Your task to perform on an android device: Open the calendar and show me this week's events? Image 0: 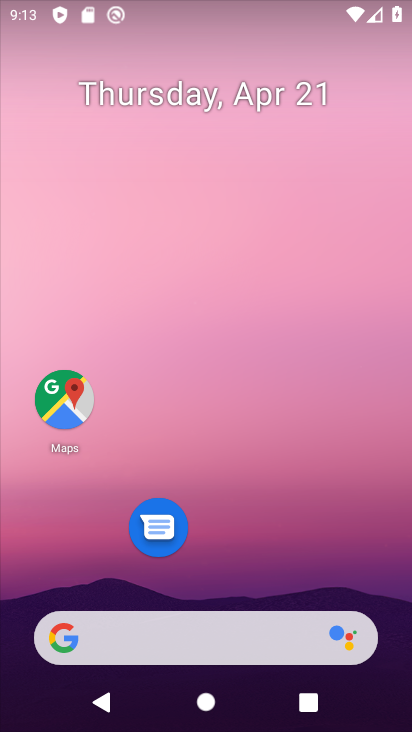
Step 0: drag from (215, 456) to (215, 51)
Your task to perform on an android device: Open the calendar and show me this week's events? Image 1: 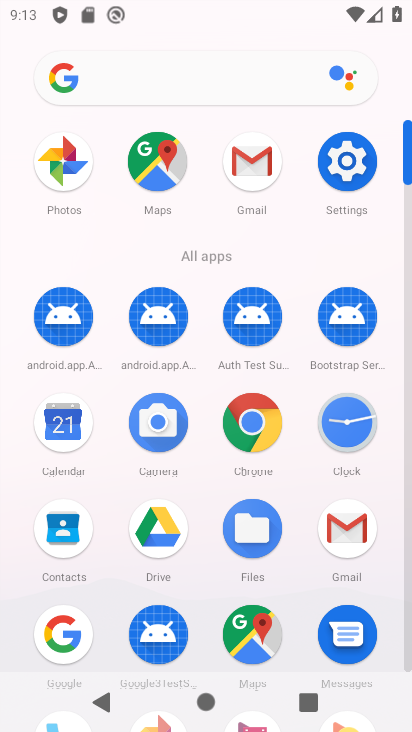
Step 1: click (73, 426)
Your task to perform on an android device: Open the calendar and show me this week's events? Image 2: 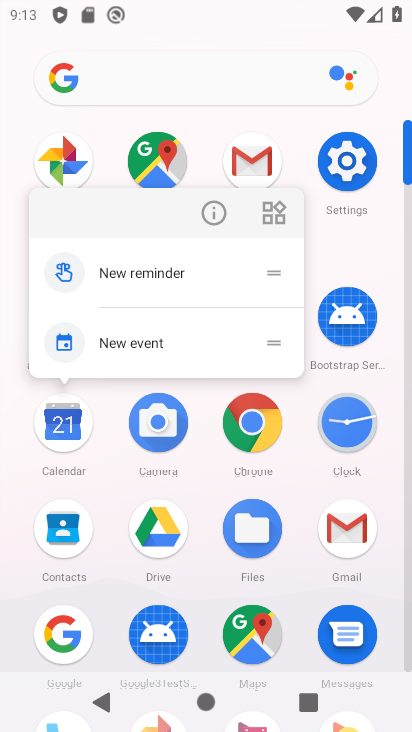
Step 2: click (71, 429)
Your task to perform on an android device: Open the calendar and show me this week's events? Image 3: 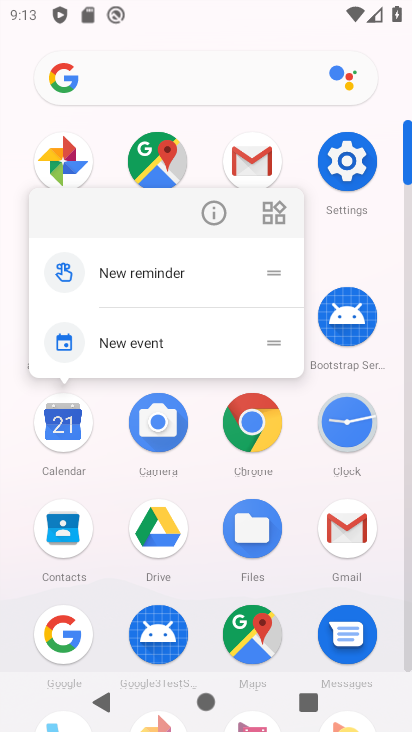
Step 3: click (71, 429)
Your task to perform on an android device: Open the calendar and show me this week's events? Image 4: 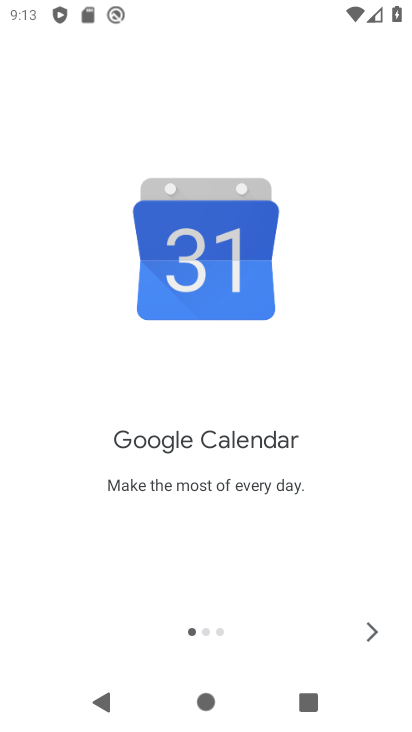
Step 4: click (363, 636)
Your task to perform on an android device: Open the calendar and show me this week's events? Image 5: 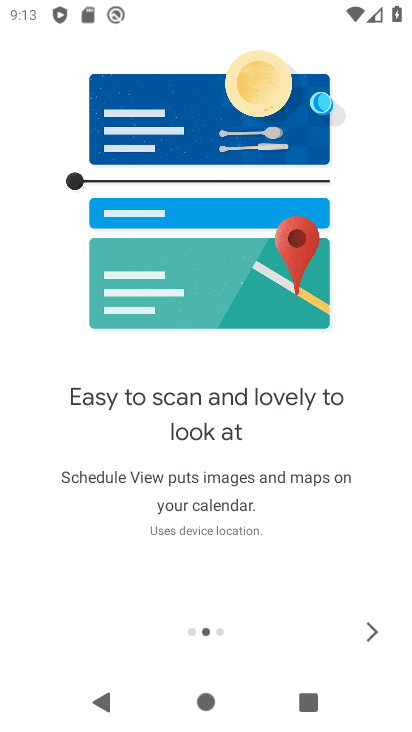
Step 5: click (363, 636)
Your task to perform on an android device: Open the calendar and show me this week's events? Image 6: 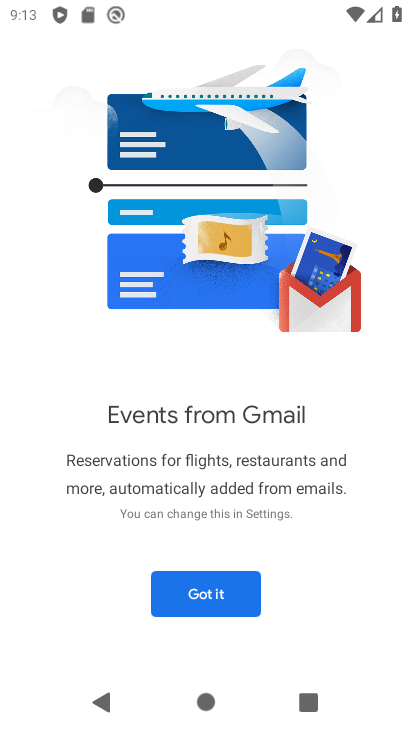
Step 6: click (220, 579)
Your task to perform on an android device: Open the calendar and show me this week's events? Image 7: 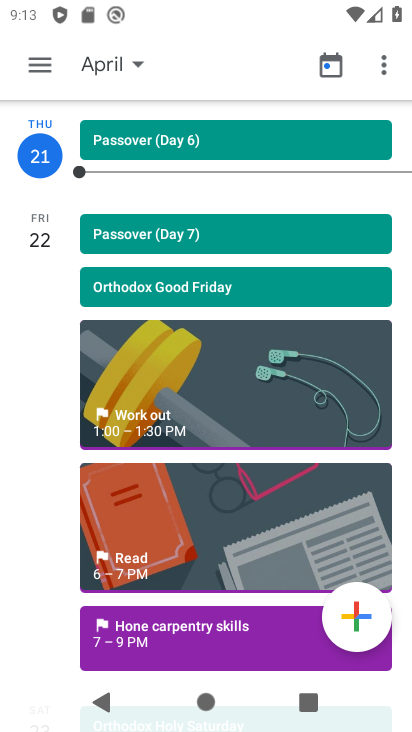
Step 7: click (133, 66)
Your task to perform on an android device: Open the calendar and show me this week's events? Image 8: 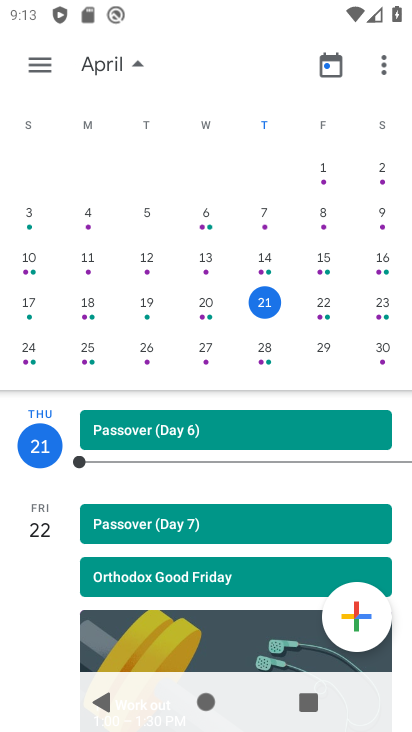
Step 8: click (310, 308)
Your task to perform on an android device: Open the calendar and show me this week's events? Image 9: 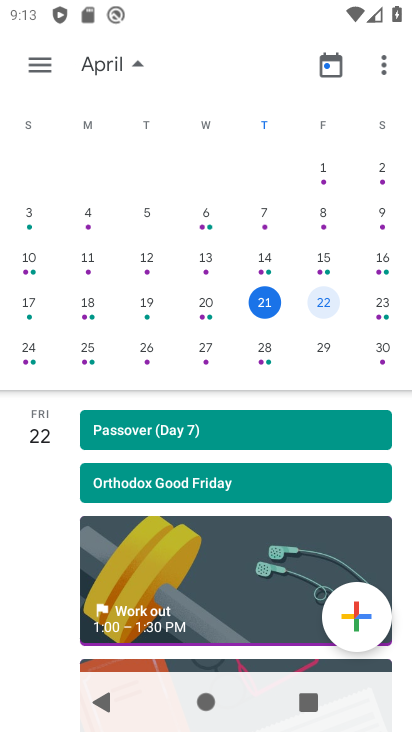
Step 9: task complete